Your task to perform on an android device: delete the emails in spam in the gmail app Image 0: 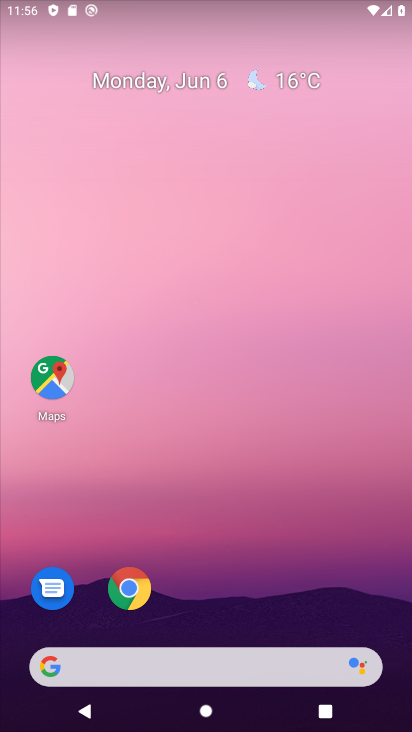
Step 0: drag from (344, 600) to (60, 44)
Your task to perform on an android device: delete the emails in spam in the gmail app Image 1: 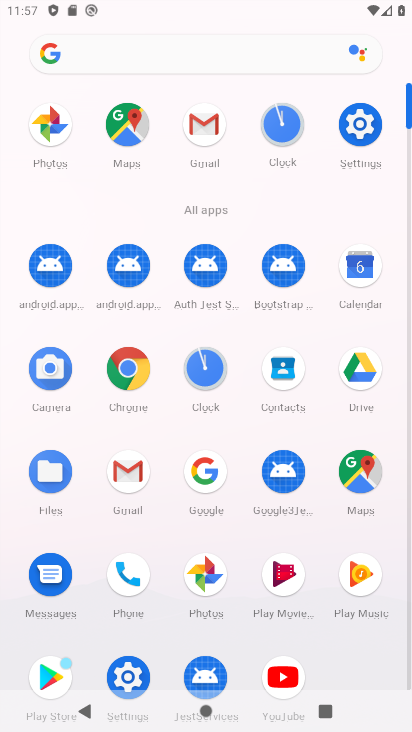
Step 1: click (200, 144)
Your task to perform on an android device: delete the emails in spam in the gmail app Image 2: 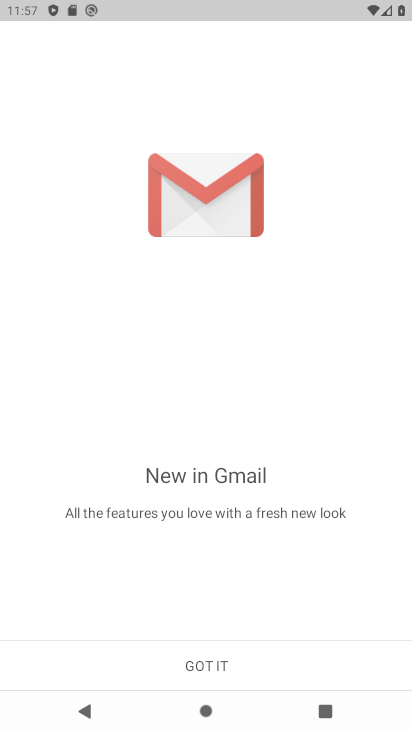
Step 2: task complete